Your task to perform on an android device: Open eBay Image 0: 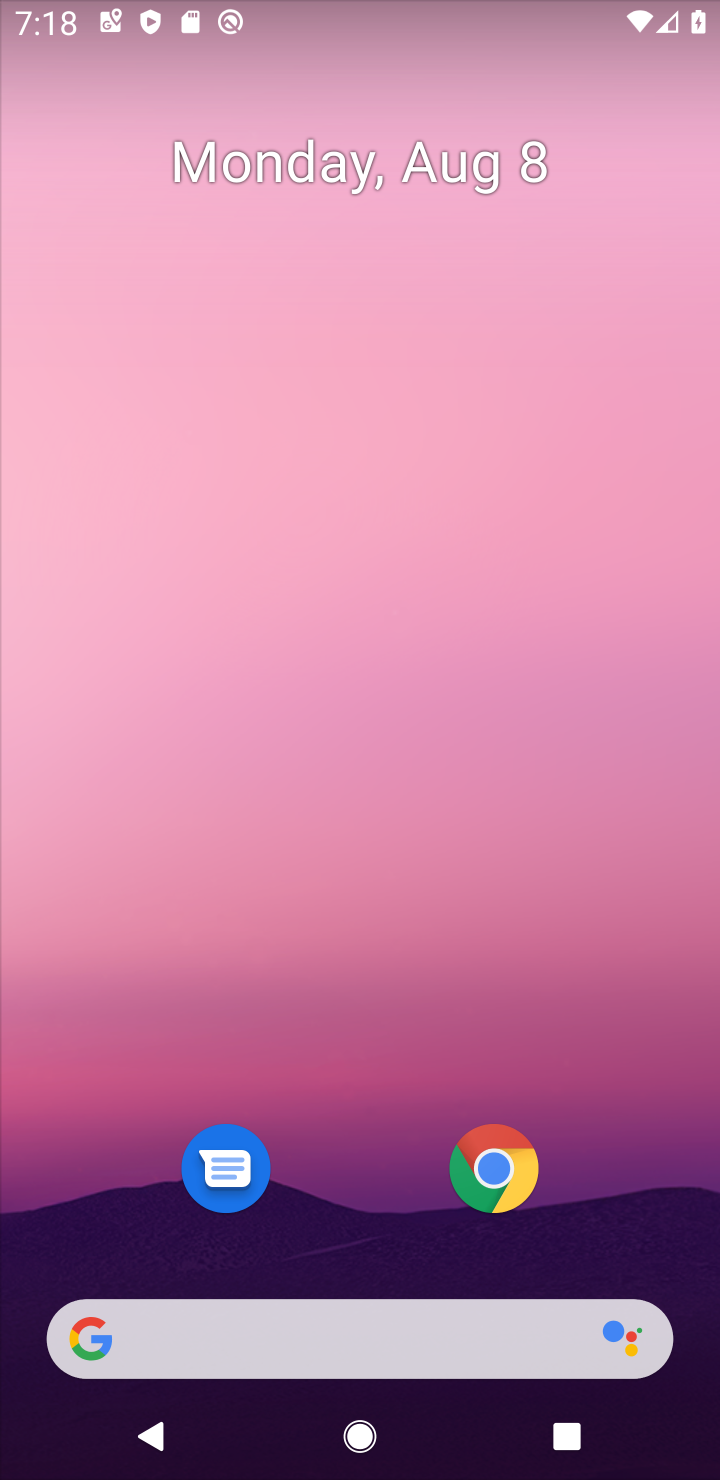
Step 0: drag from (601, 1047) to (394, 143)
Your task to perform on an android device: Open eBay Image 1: 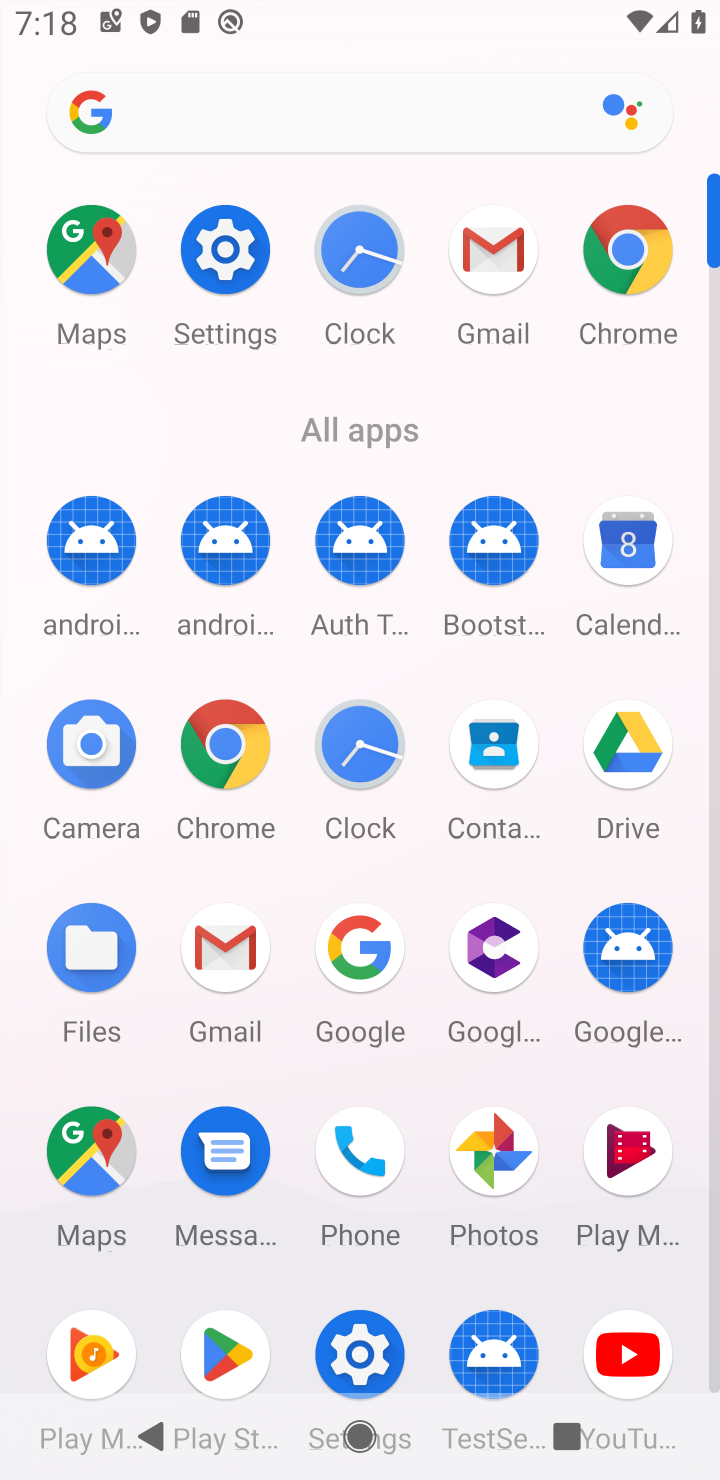
Step 1: click (342, 962)
Your task to perform on an android device: Open eBay Image 2: 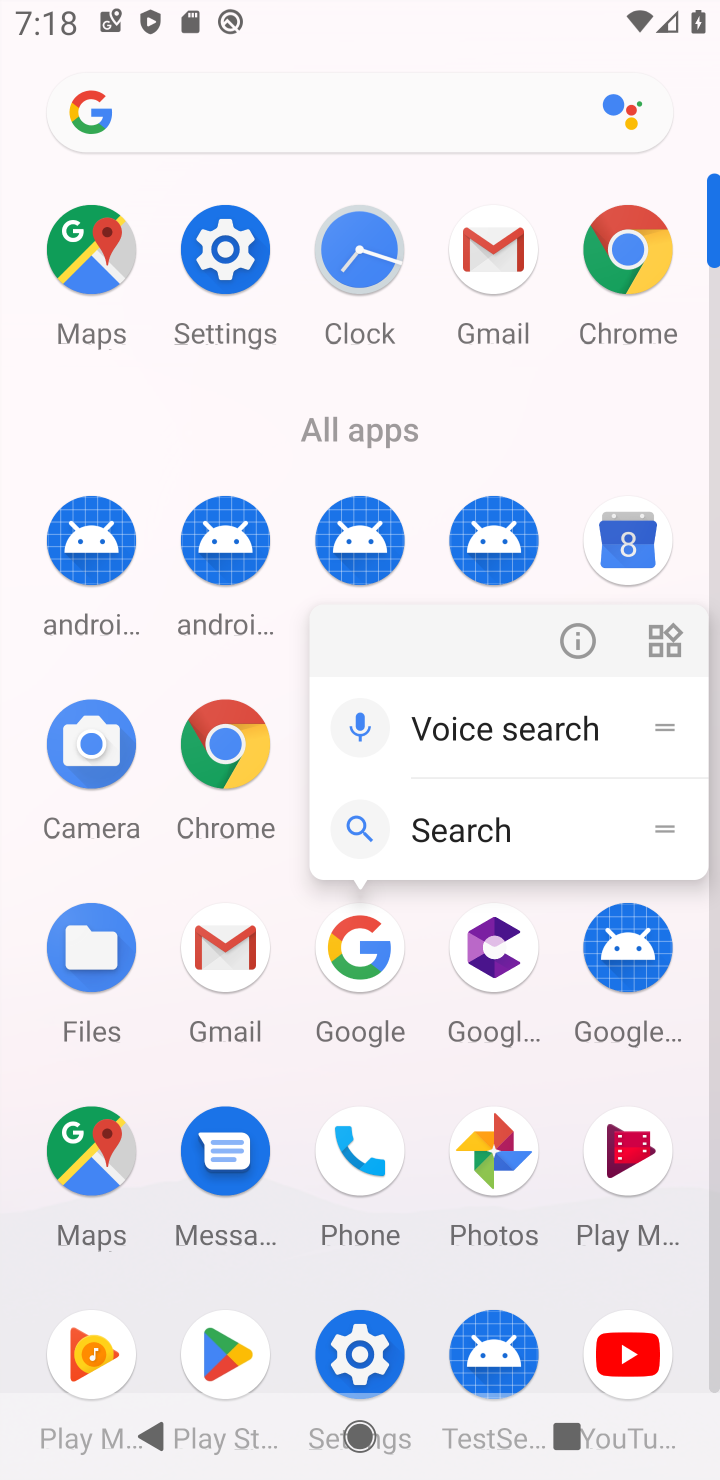
Step 2: click (342, 962)
Your task to perform on an android device: Open eBay Image 3: 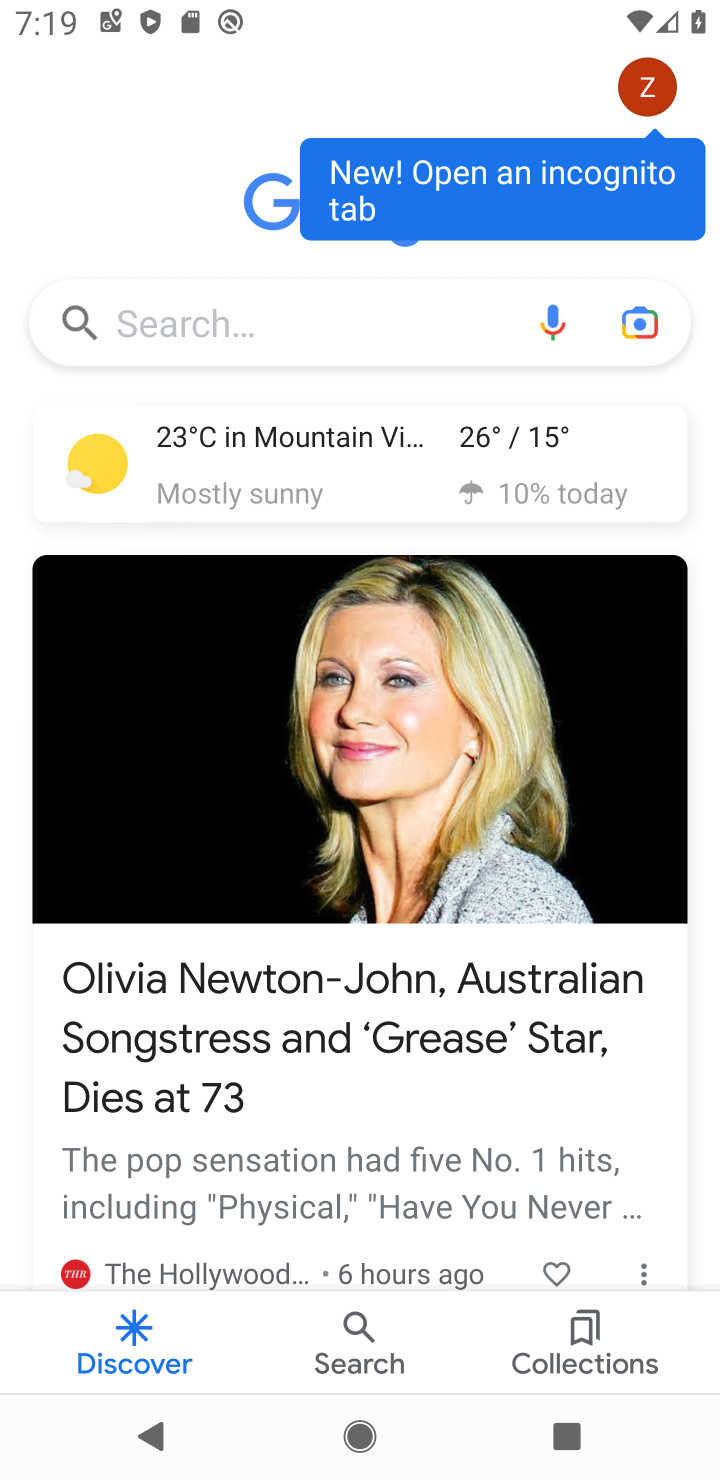
Step 3: click (194, 327)
Your task to perform on an android device: Open eBay Image 4: 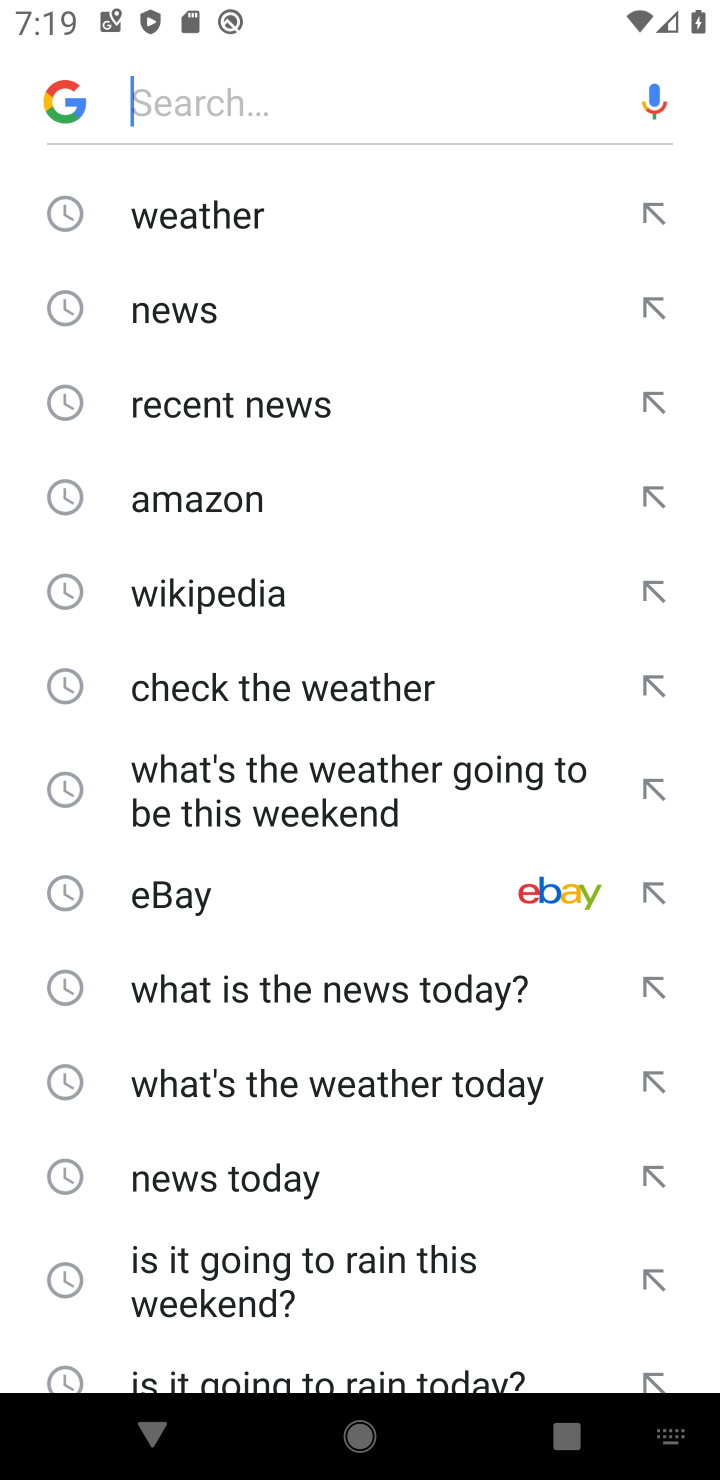
Step 4: click (195, 880)
Your task to perform on an android device: Open eBay Image 5: 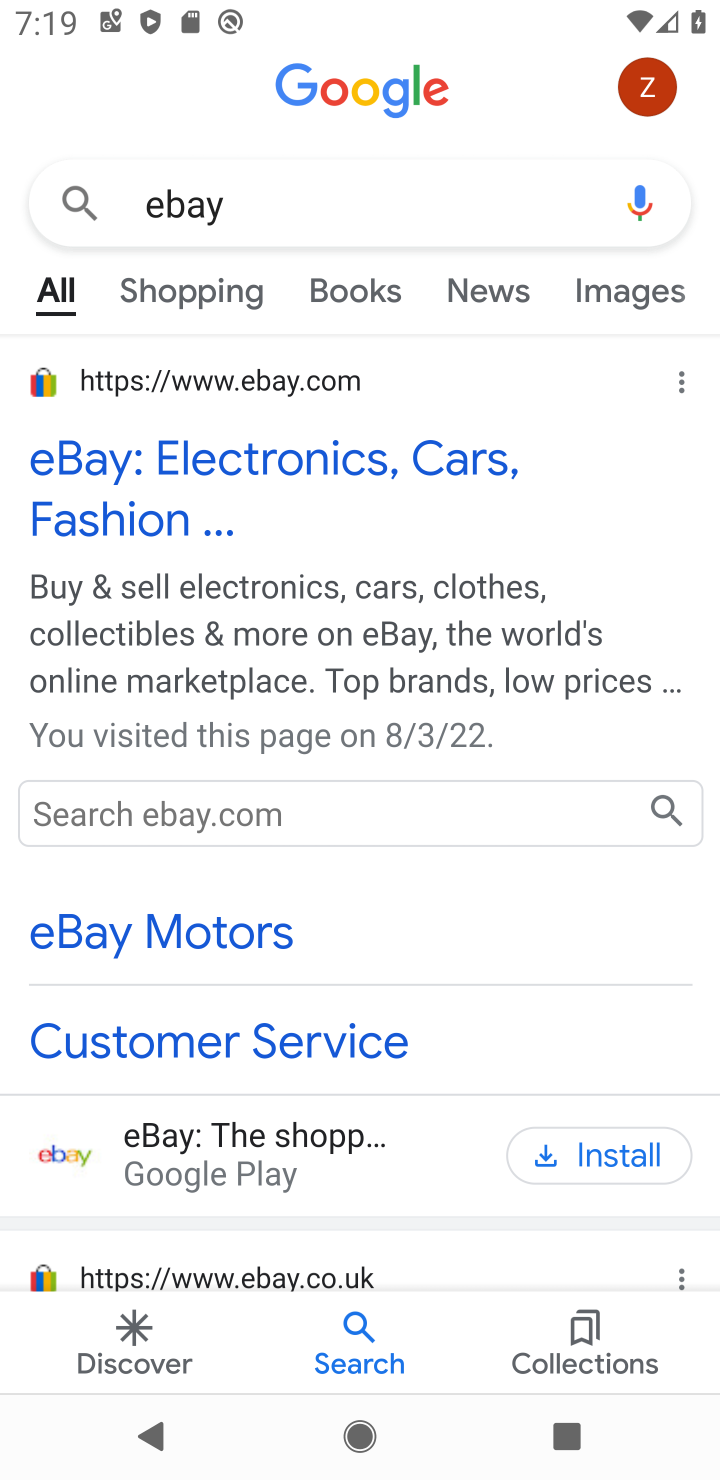
Step 5: task complete